Your task to perform on an android device: Search for hotels in Denver Image 0: 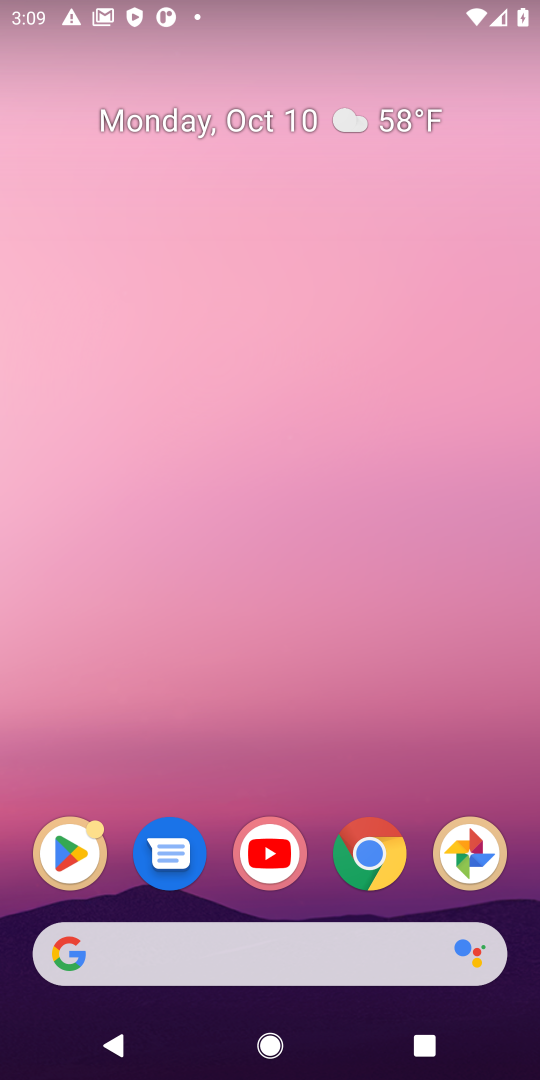
Step 0: click (365, 858)
Your task to perform on an android device: Search for hotels in Denver Image 1: 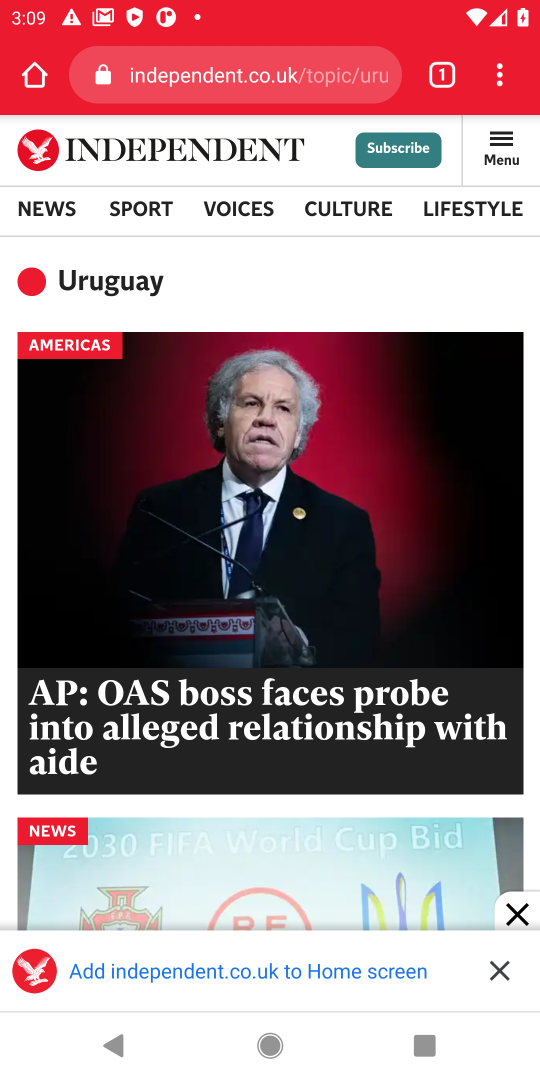
Step 1: click (302, 61)
Your task to perform on an android device: Search for hotels in Denver Image 2: 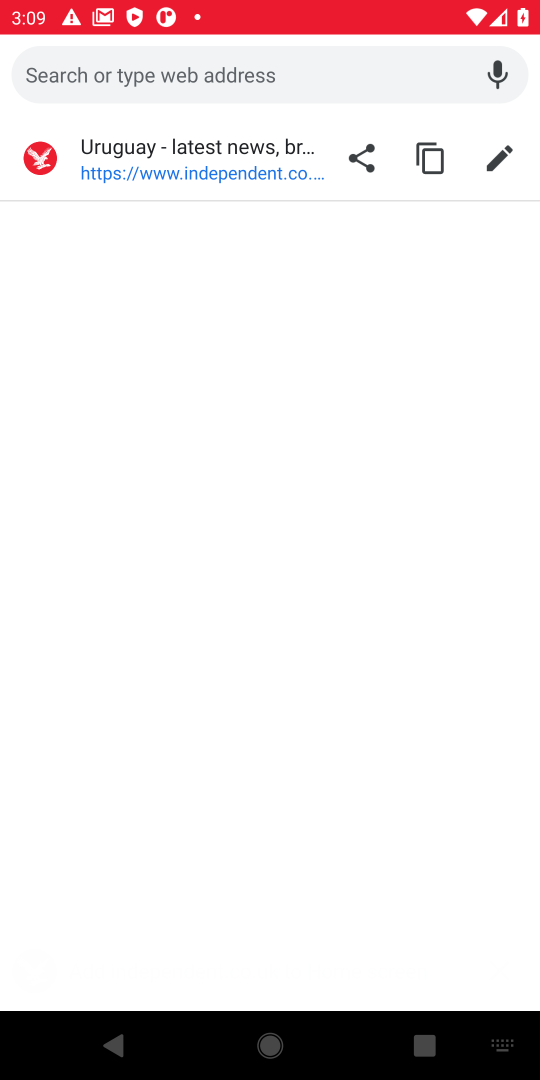
Step 2: type " hotels in Denver"
Your task to perform on an android device: Search for hotels in Denver Image 3: 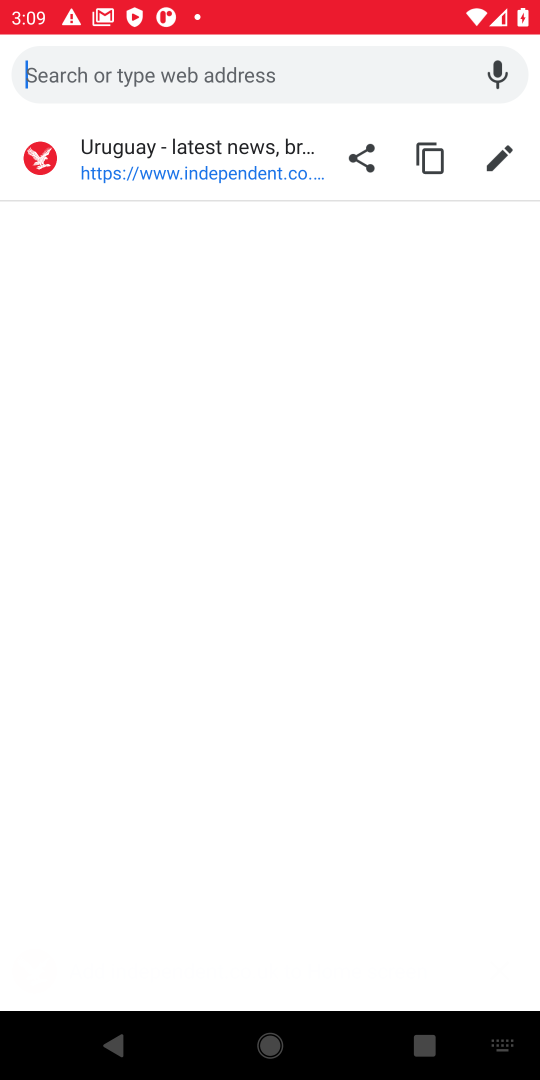
Step 3: click (344, 81)
Your task to perform on an android device: Search for hotels in Denver Image 4: 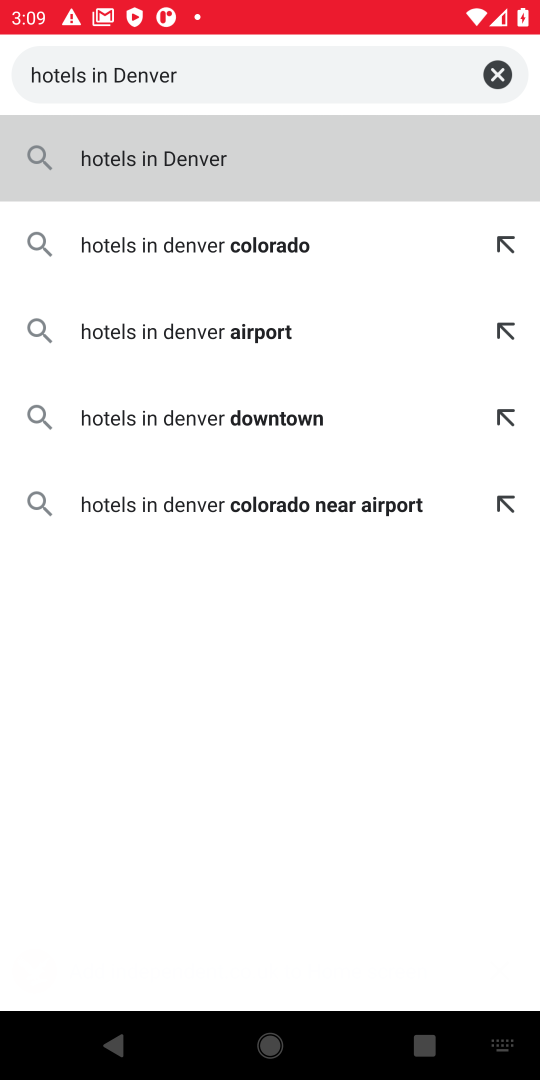
Step 4: click (295, 191)
Your task to perform on an android device: Search for hotels in Denver Image 5: 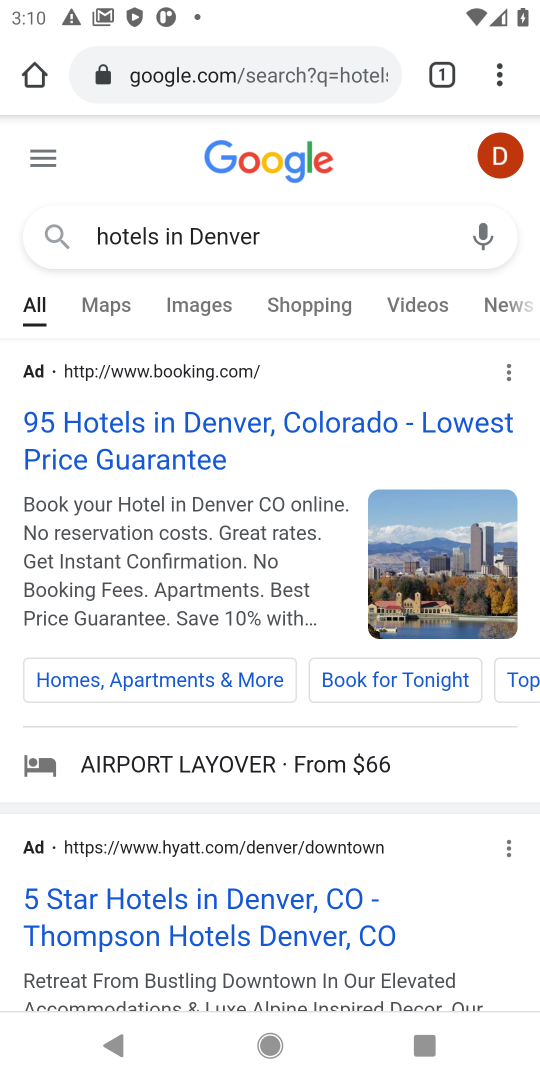
Step 5: click (315, 437)
Your task to perform on an android device: Search for hotels in Denver Image 6: 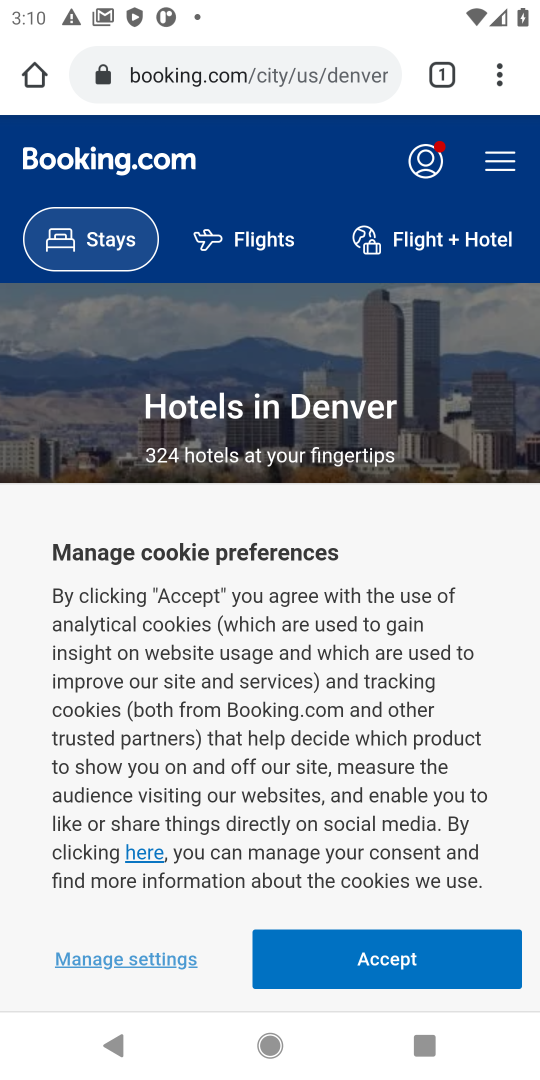
Step 6: click (293, 953)
Your task to perform on an android device: Search for hotels in Denver Image 7: 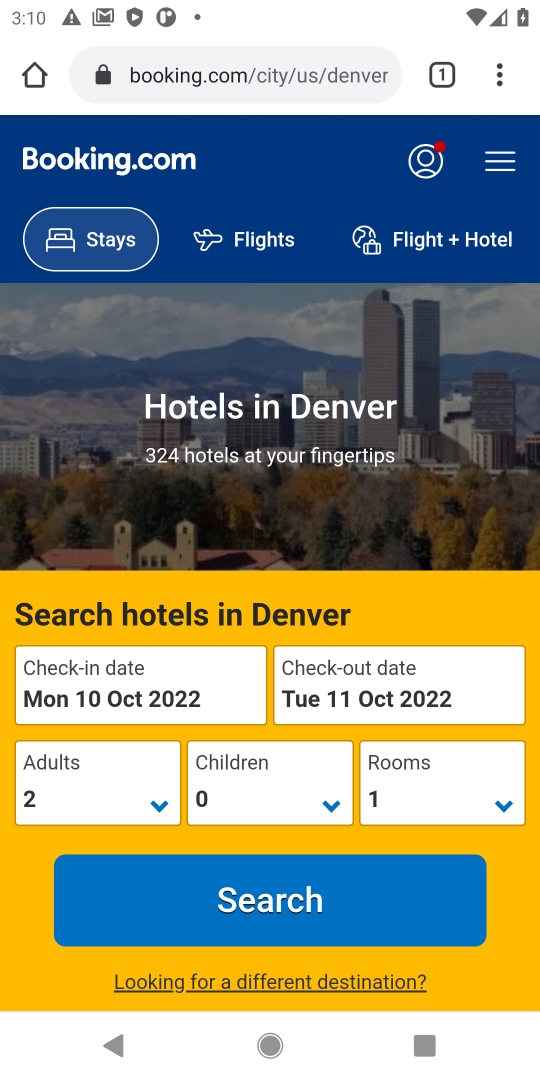
Step 7: click (329, 893)
Your task to perform on an android device: Search for hotels in Denver Image 8: 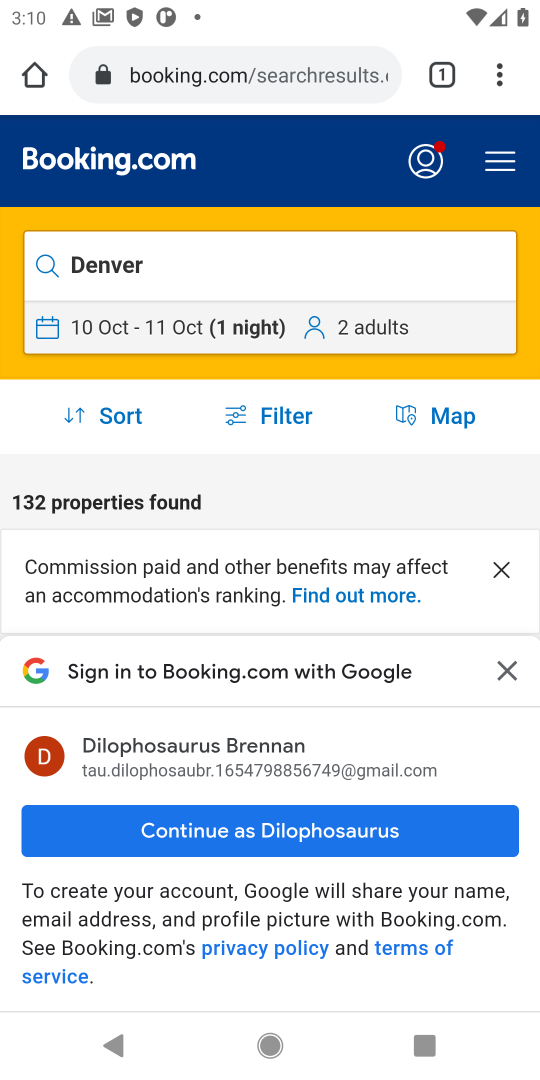
Step 8: click (509, 667)
Your task to perform on an android device: Search for hotels in Denver Image 9: 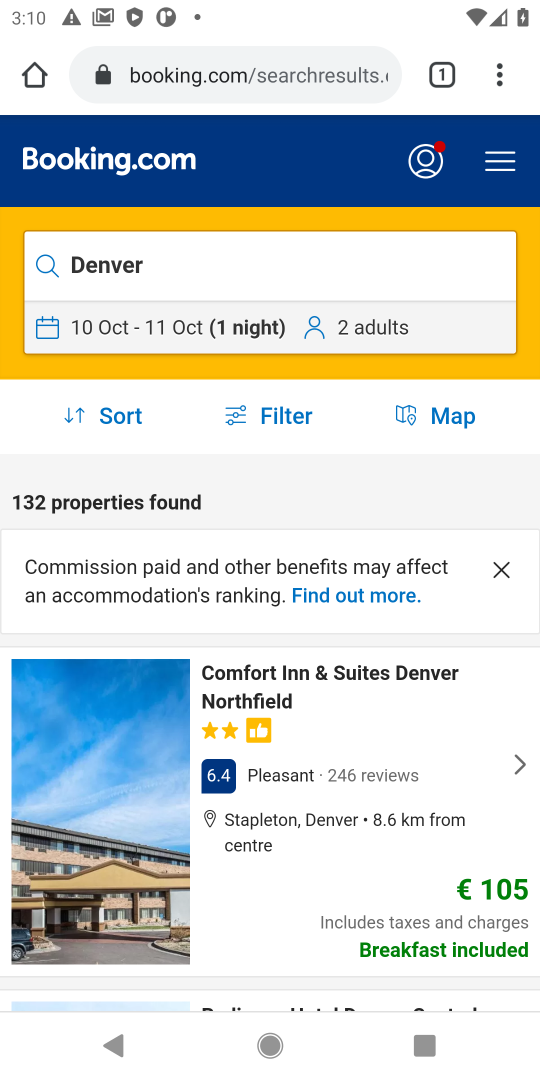
Step 9: task complete